Your task to perform on an android device: change the clock display to digital Image 0: 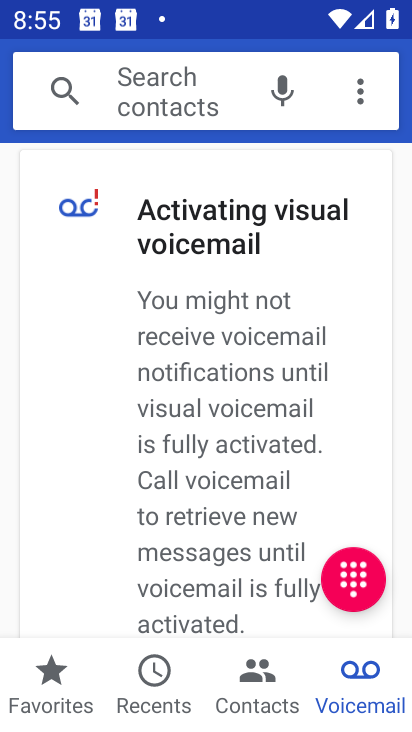
Step 0: press home button
Your task to perform on an android device: change the clock display to digital Image 1: 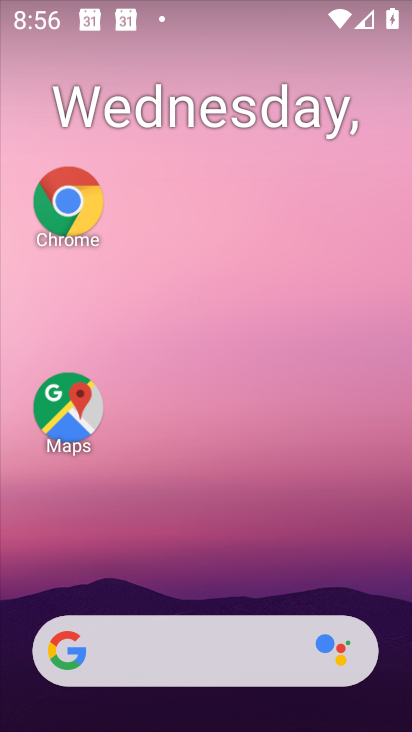
Step 1: drag from (225, 593) to (140, 6)
Your task to perform on an android device: change the clock display to digital Image 2: 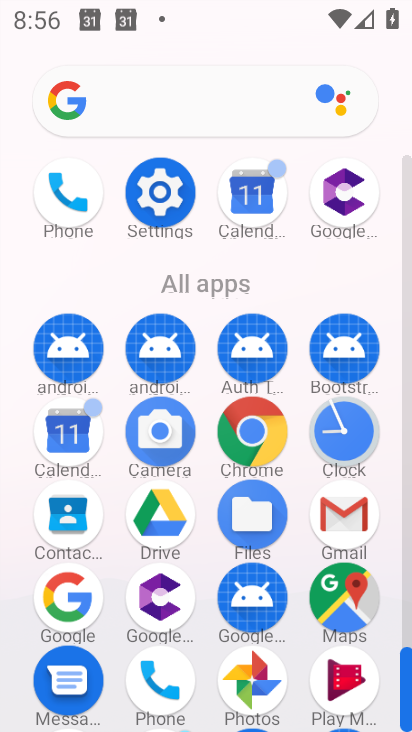
Step 2: click (153, 191)
Your task to perform on an android device: change the clock display to digital Image 3: 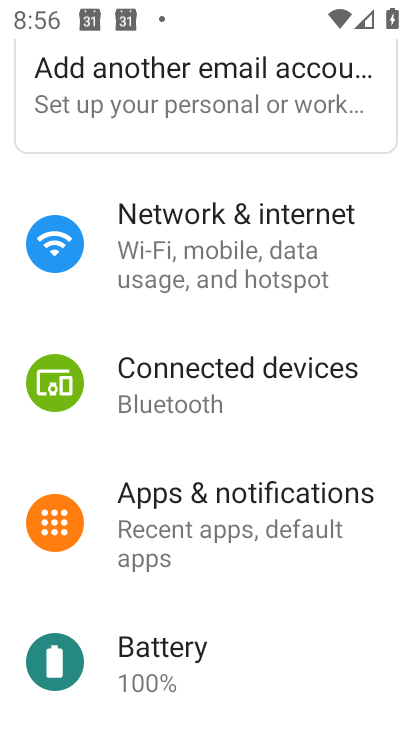
Step 3: press back button
Your task to perform on an android device: change the clock display to digital Image 4: 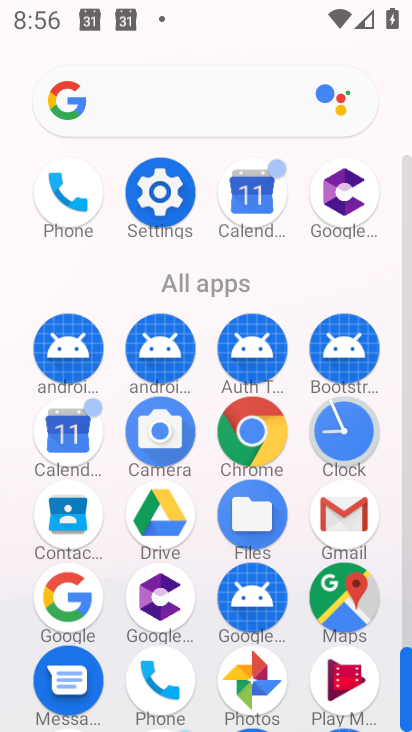
Step 4: click (351, 437)
Your task to perform on an android device: change the clock display to digital Image 5: 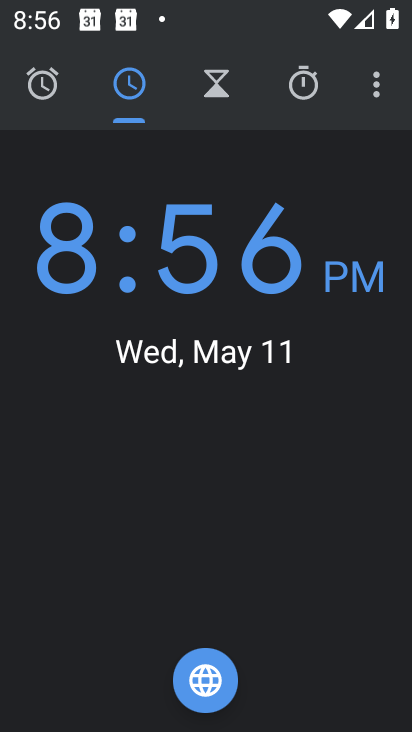
Step 5: click (367, 105)
Your task to perform on an android device: change the clock display to digital Image 6: 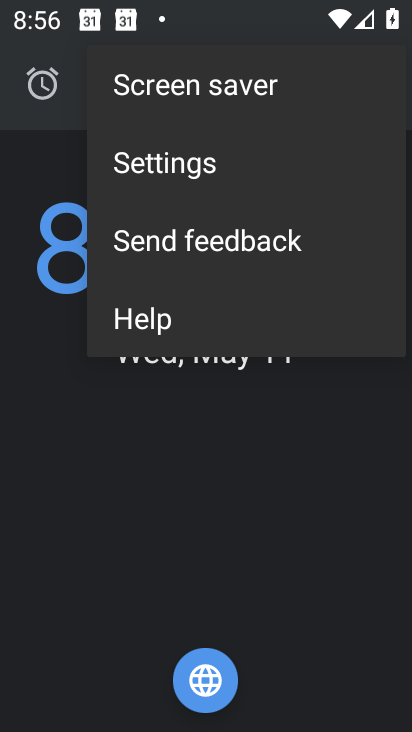
Step 6: click (211, 153)
Your task to perform on an android device: change the clock display to digital Image 7: 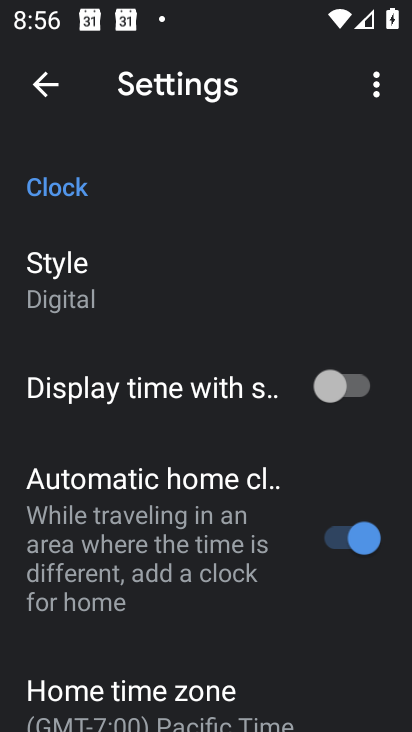
Step 7: click (76, 271)
Your task to perform on an android device: change the clock display to digital Image 8: 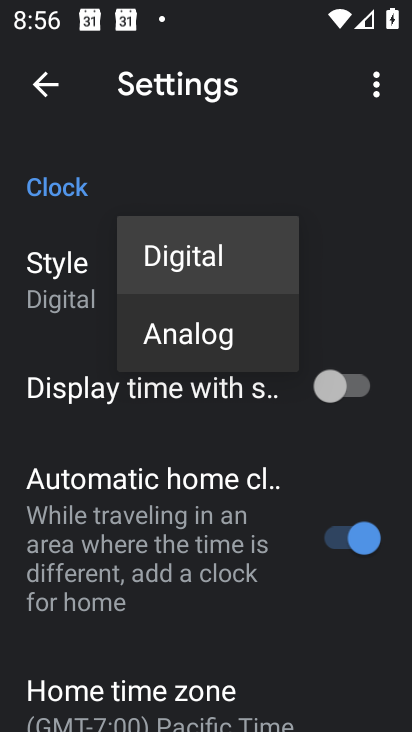
Step 8: click (179, 236)
Your task to perform on an android device: change the clock display to digital Image 9: 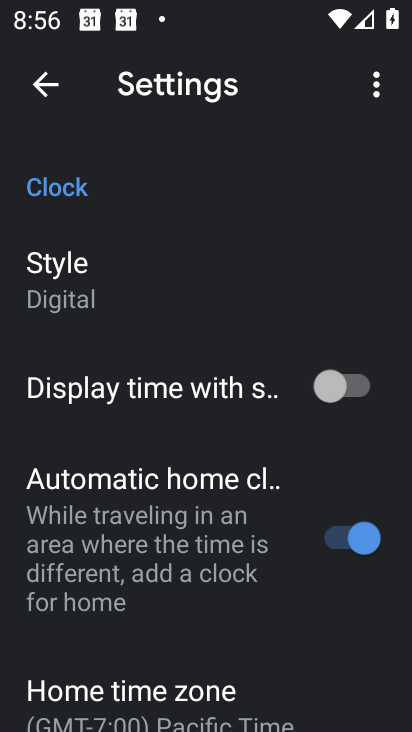
Step 9: task complete